Your task to perform on an android device: Open Google Maps Image 0: 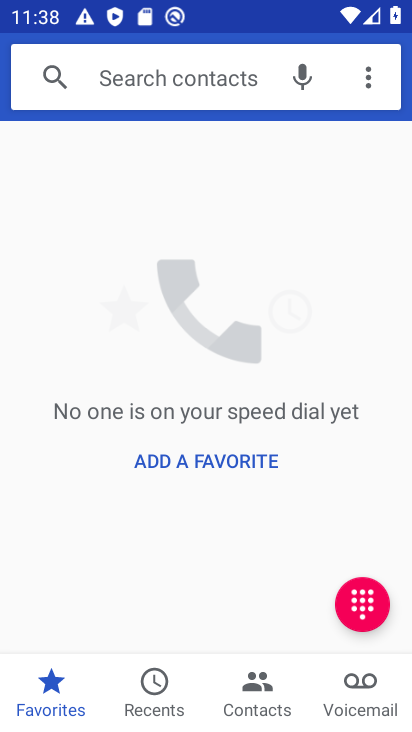
Step 0: press home button
Your task to perform on an android device: Open Google Maps Image 1: 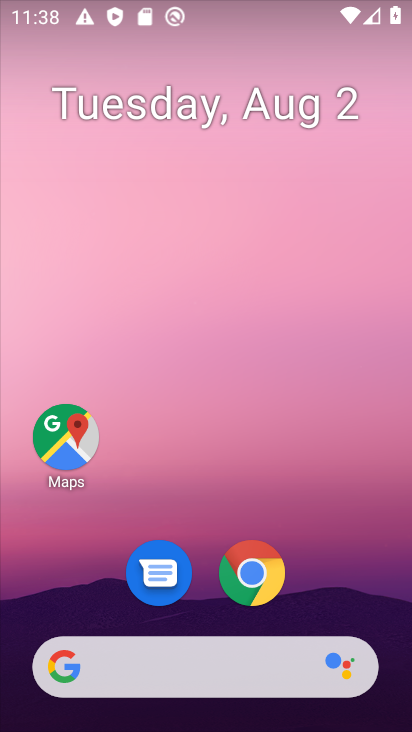
Step 1: drag from (250, 656) to (139, 191)
Your task to perform on an android device: Open Google Maps Image 2: 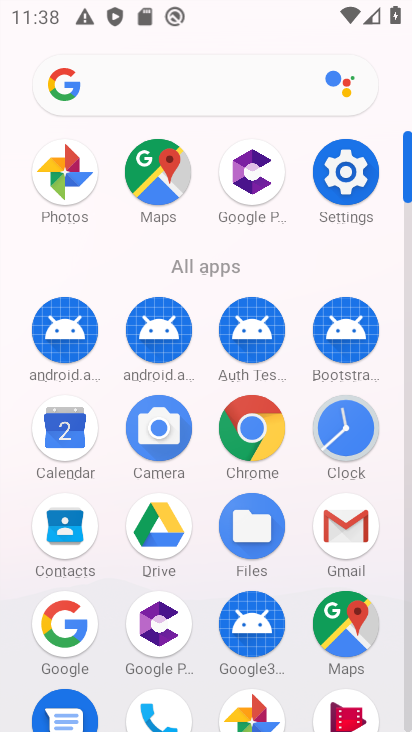
Step 2: click (356, 627)
Your task to perform on an android device: Open Google Maps Image 3: 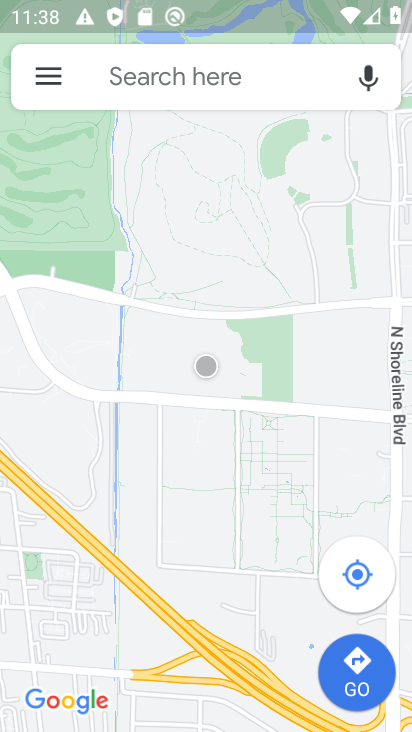
Step 3: task complete